Your task to perform on an android device: change the upload size in google photos Image 0: 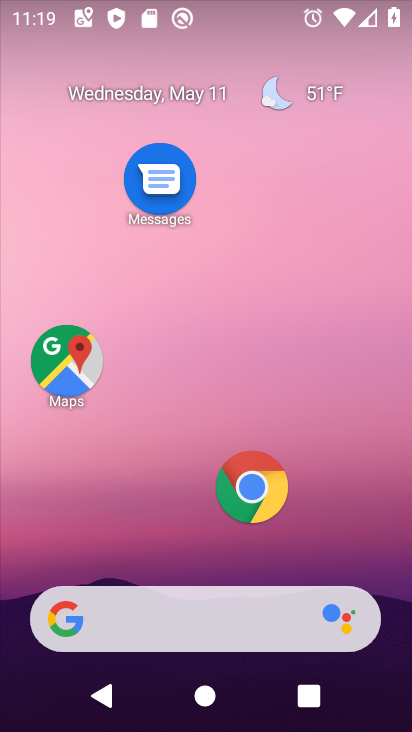
Step 0: drag from (198, 544) to (261, 204)
Your task to perform on an android device: change the upload size in google photos Image 1: 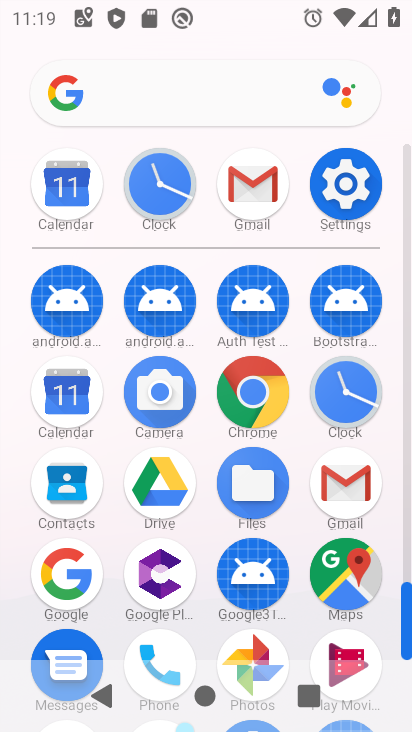
Step 1: drag from (213, 605) to (238, 291)
Your task to perform on an android device: change the upload size in google photos Image 2: 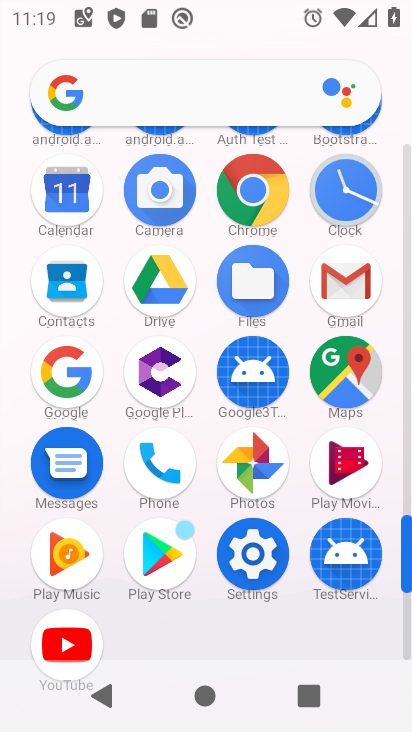
Step 2: click (251, 474)
Your task to perform on an android device: change the upload size in google photos Image 3: 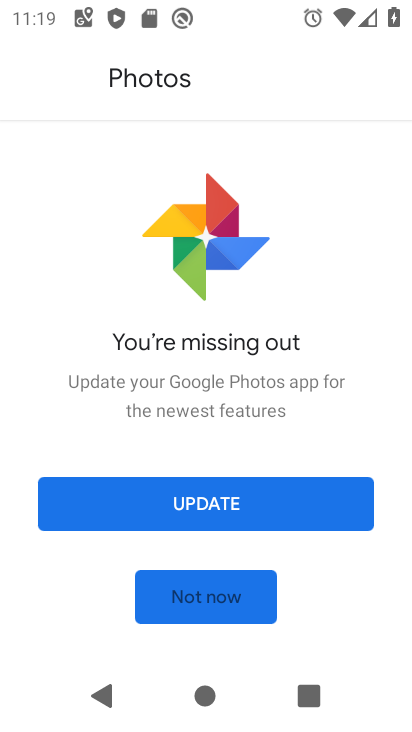
Step 3: click (231, 579)
Your task to perform on an android device: change the upload size in google photos Image 4: 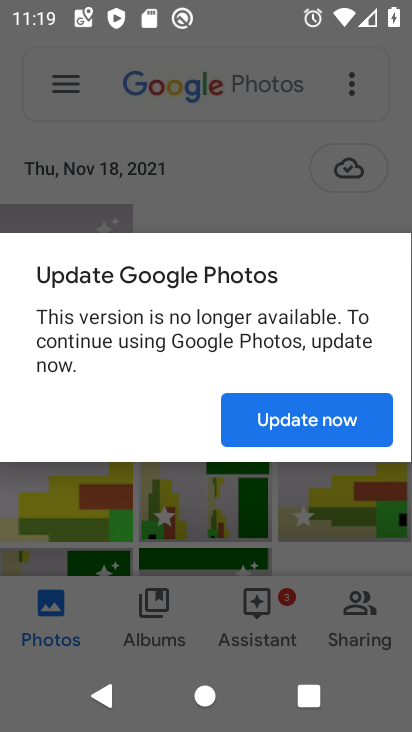
Step 4: click (254, 418)
Your task to perform on an android device: change the upload size in google photos Image 5: 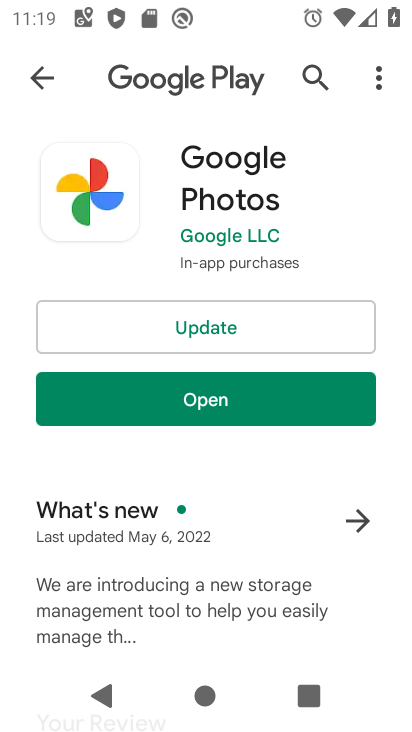
Step 5: click (221, 405)
Your task to perform on an android device: change the upload size in google photos Image 6: 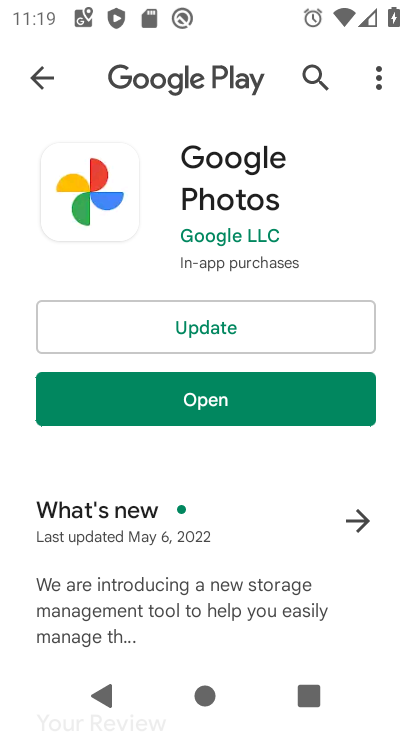
Step 6: click (217, 406)
Your task to perform on an android device: change the upload size in google photos Image 7: 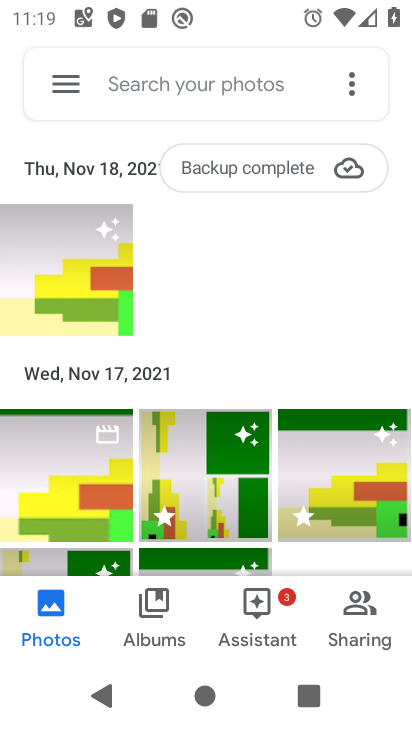
Step 7: click (61, 82)
Your task to perform on an android device: change the upload size in google photos Image 8: 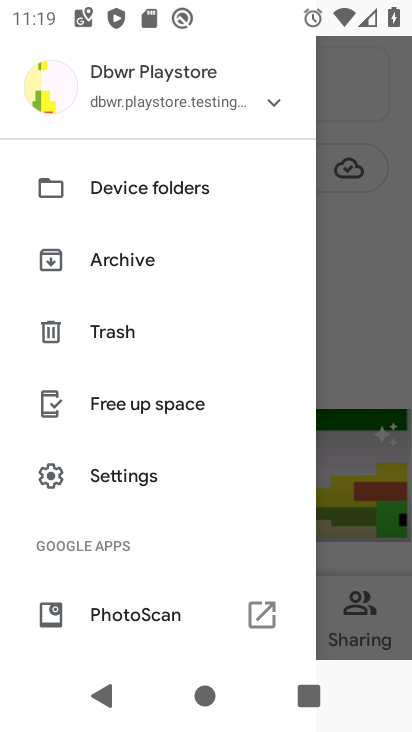
Step 8: click (133, 477)
Your task to perform on an android device: change the upload size in google photos Image 9: 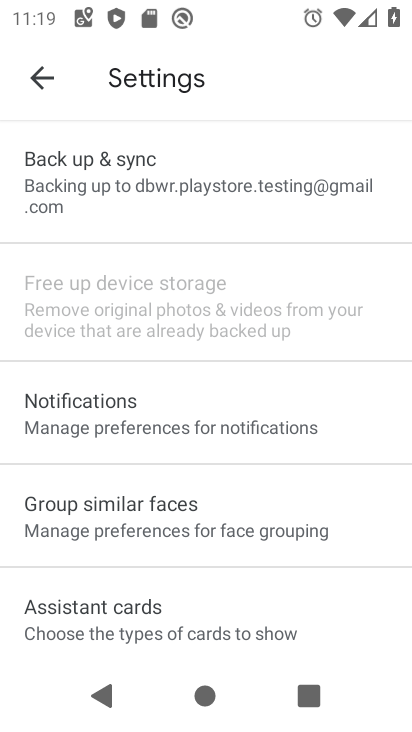
Step 9: drag from (180, 267) to (210, 518)
Your task to perform on an android device: change the upload size in google photos Image 10: 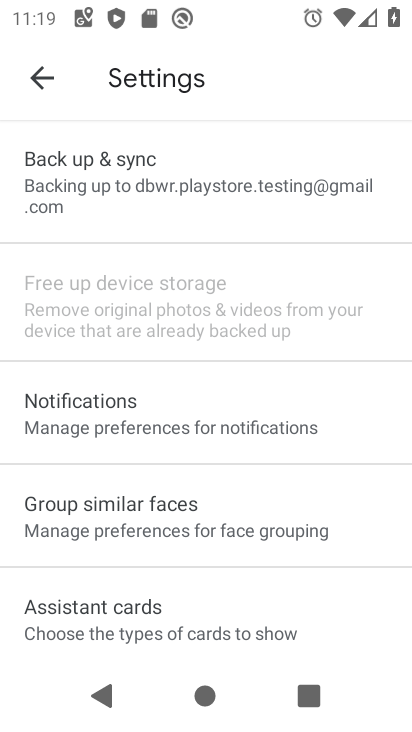
Step 10: click (144, 185)
Your task to perform on an android device: change the upload size in google photos Image 11: 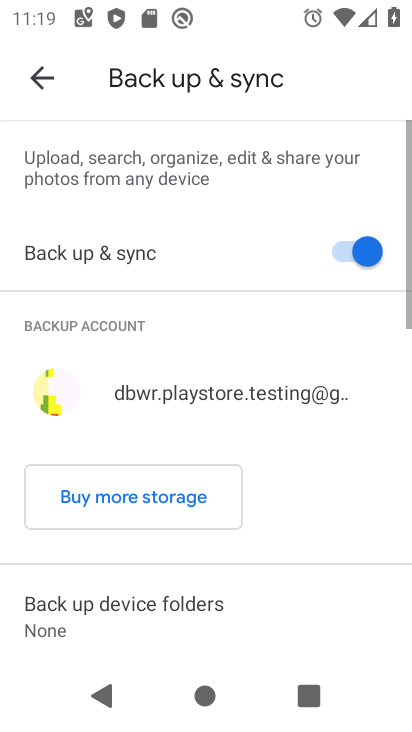
Step 11: drag from (185, 603) to (189, 294)
Your task to perform on an android device: change the upload size in google photos Image 12: 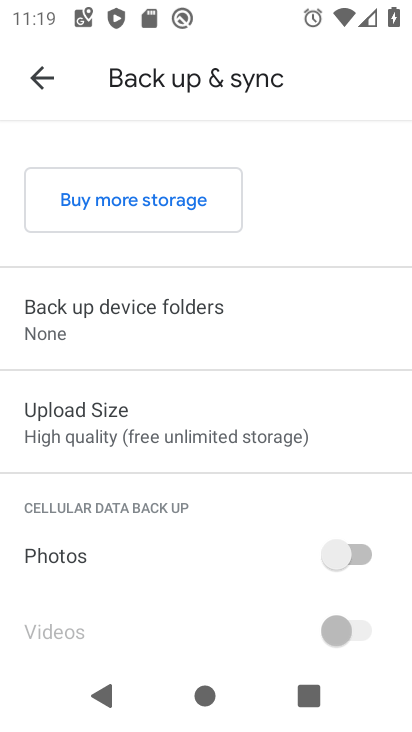
Step 12: click (157, 445)
Your task to perform on an android device: change the upload size in google photos Image 13: 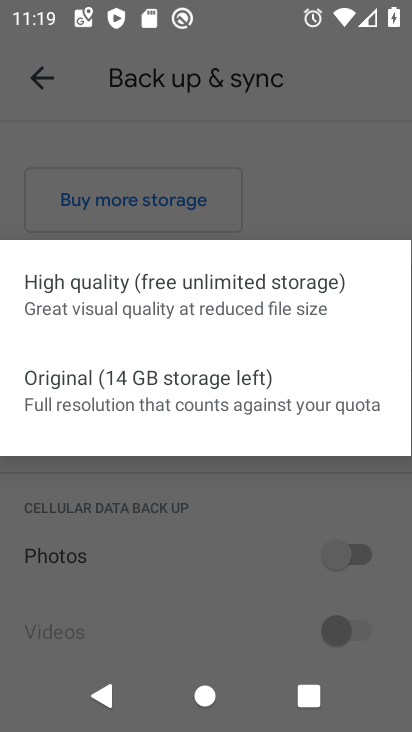
Step 13: click (157, 400)
Your task to perform on an android device: change the upload size in google photos Image 14: 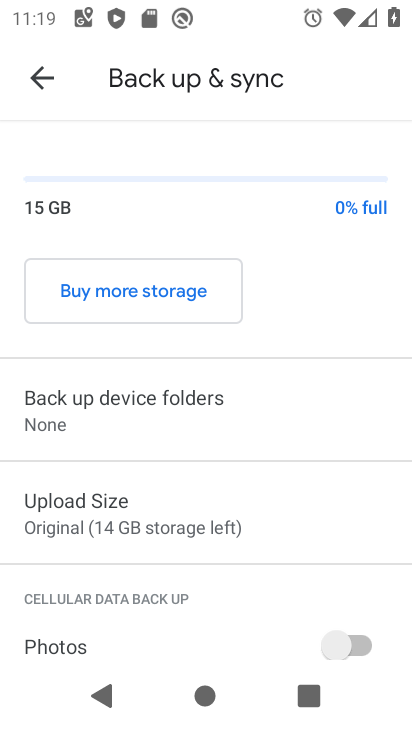
Step 14: task complete